Your task to perform on an android device: turn off javascript in the chrome app Image 0: 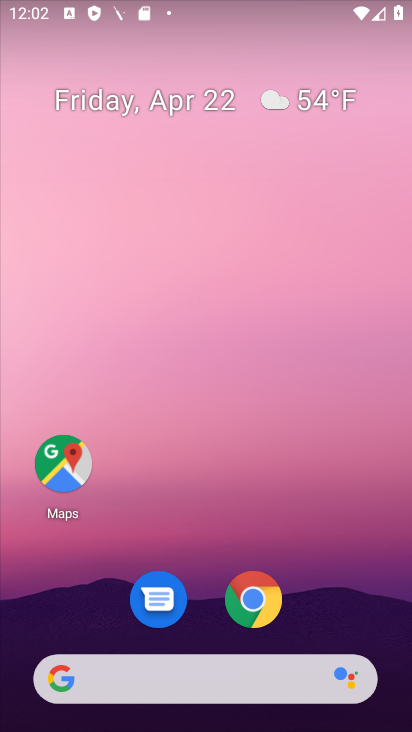
Step 0: click (260, 597)
Your task to perform on an android device: turn off javascript in the chrome app Image 1: 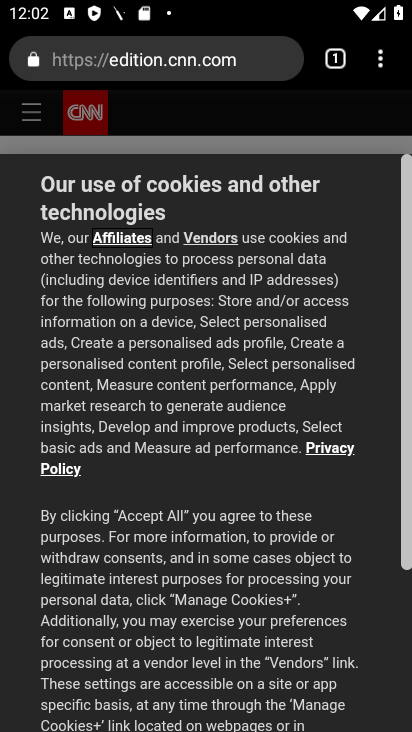
Step 1: click (383, 55)
Your task to perform on an android device: turn off javascript in the chrome app Image 2: 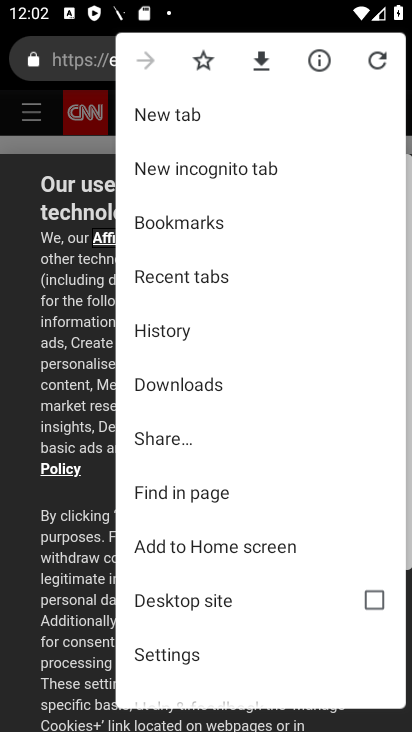
Step 2: click (217, 658)
Your task to perform on an android device: turn off javascript in the chrome app Image 3: 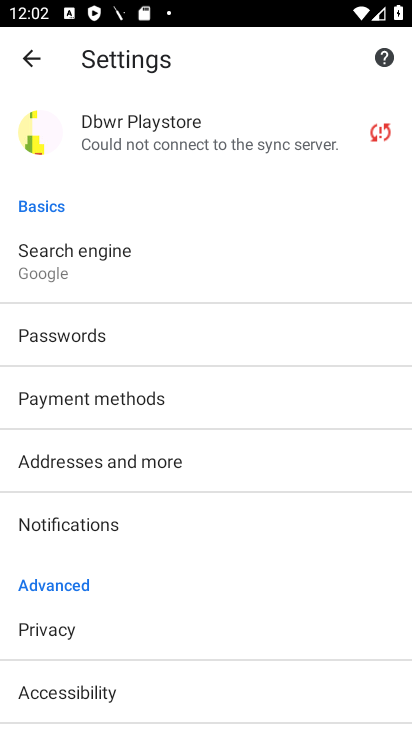
Step 3: drag from (171, 552) to (190, 163)
Your task to perform on an android device: turn off javascript in the chrome app Image 4: 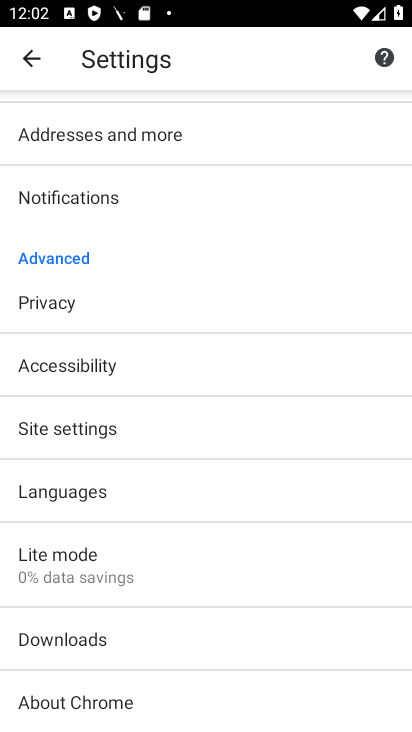
Step 4: click (136, 434)
Your task to perform on an android device: turn off javascript in the chrome app Image 5: 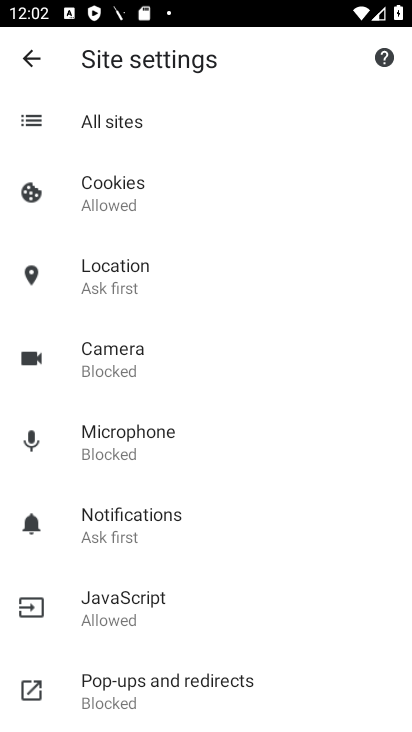
Step 5: click (167, 610)
Your task to perform on an android device: turn off javascript in the chrome app Image 6: 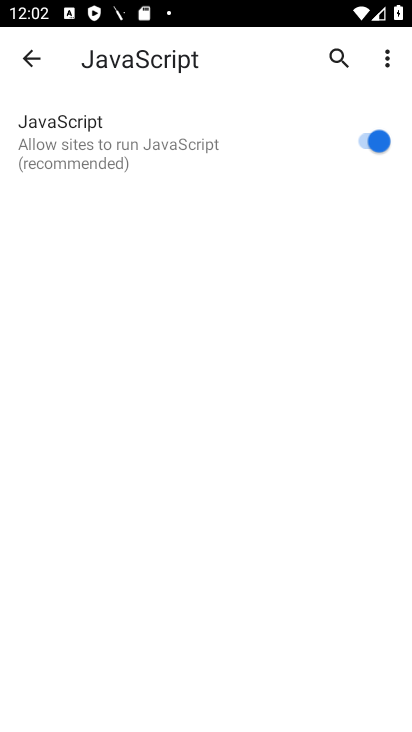
Step 6: click (367, 138)
Your task to perform on an android device: turn off javascript in the chrome app Image 7: 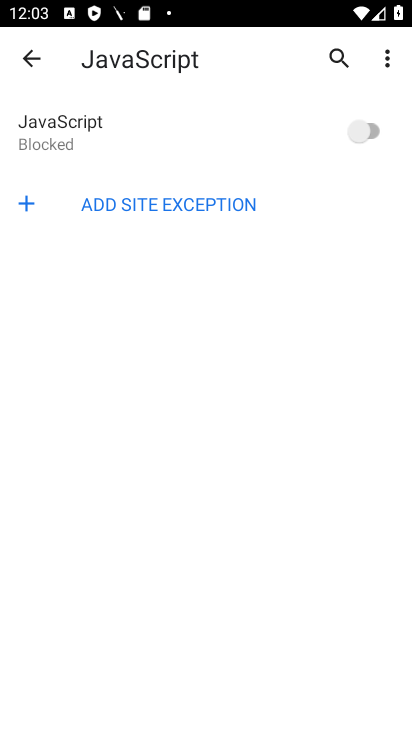
Step 7: task complete